Your task to perform on an android device: Go to Yahoo.com Image 0: 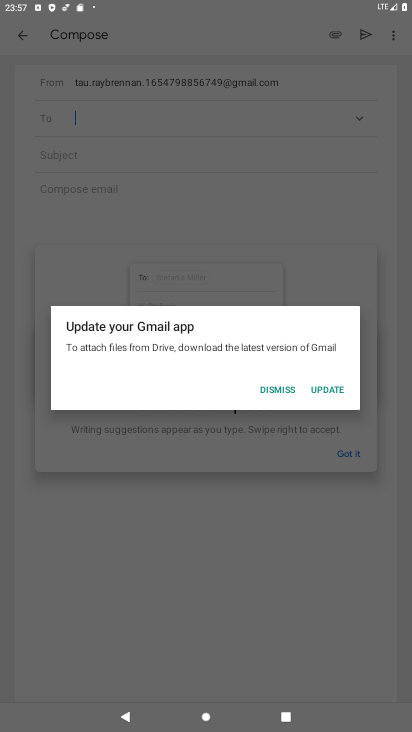
Step 0: press home button
Your task to perform on an android device: Go to Yahoo.com Image 1: 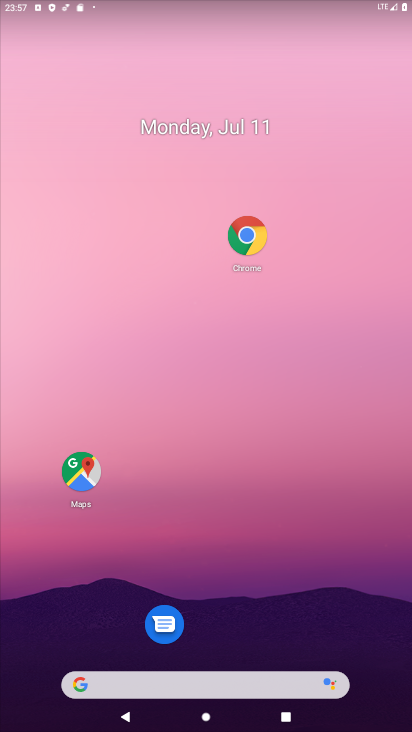
Step 1: click (253, 247)
Your task to perform on an android device: Go to Yahoo.com Image 2: 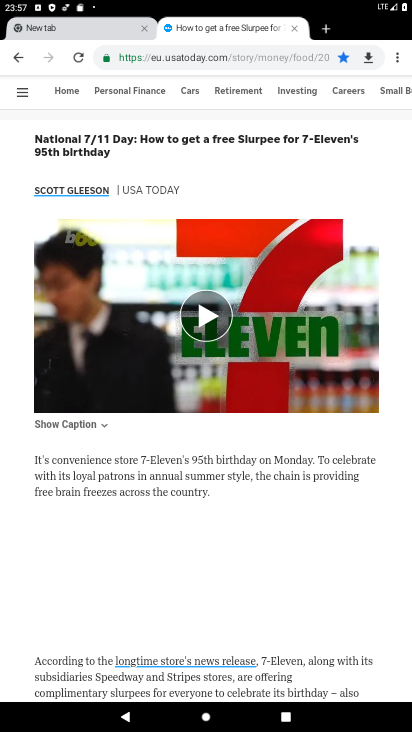
Step 2: click (327, 32)
Your task to perform on an android device: Go to Yahoo.com Image 3: 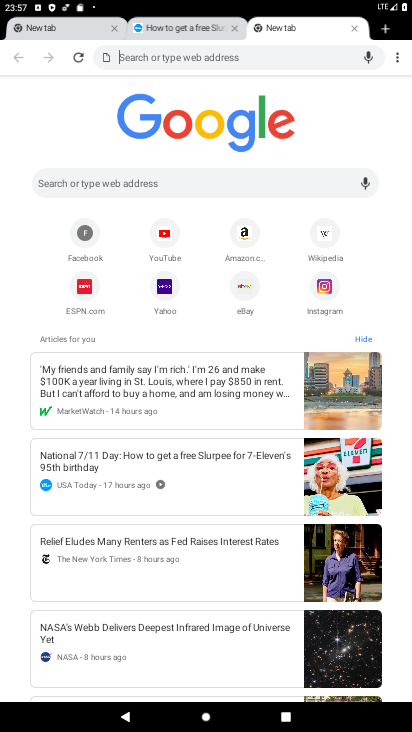
Step 3: click (159, 278)
Your task to perform on an android device: Go to Yahoo.com Image 4: 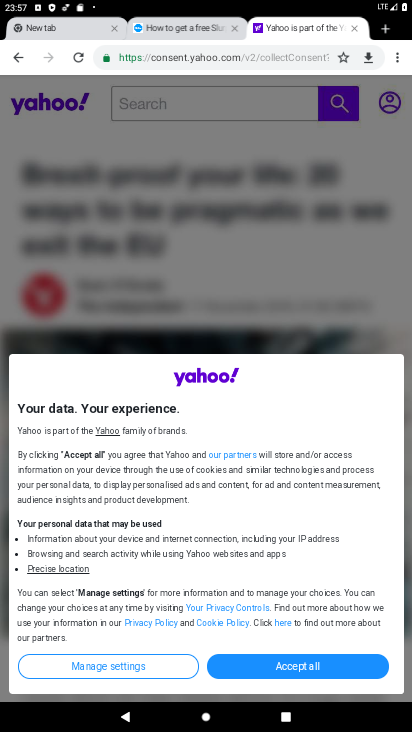
Step 4: task complete